Your task to perform on an android device: open app "Firefox Browser" Image 0: 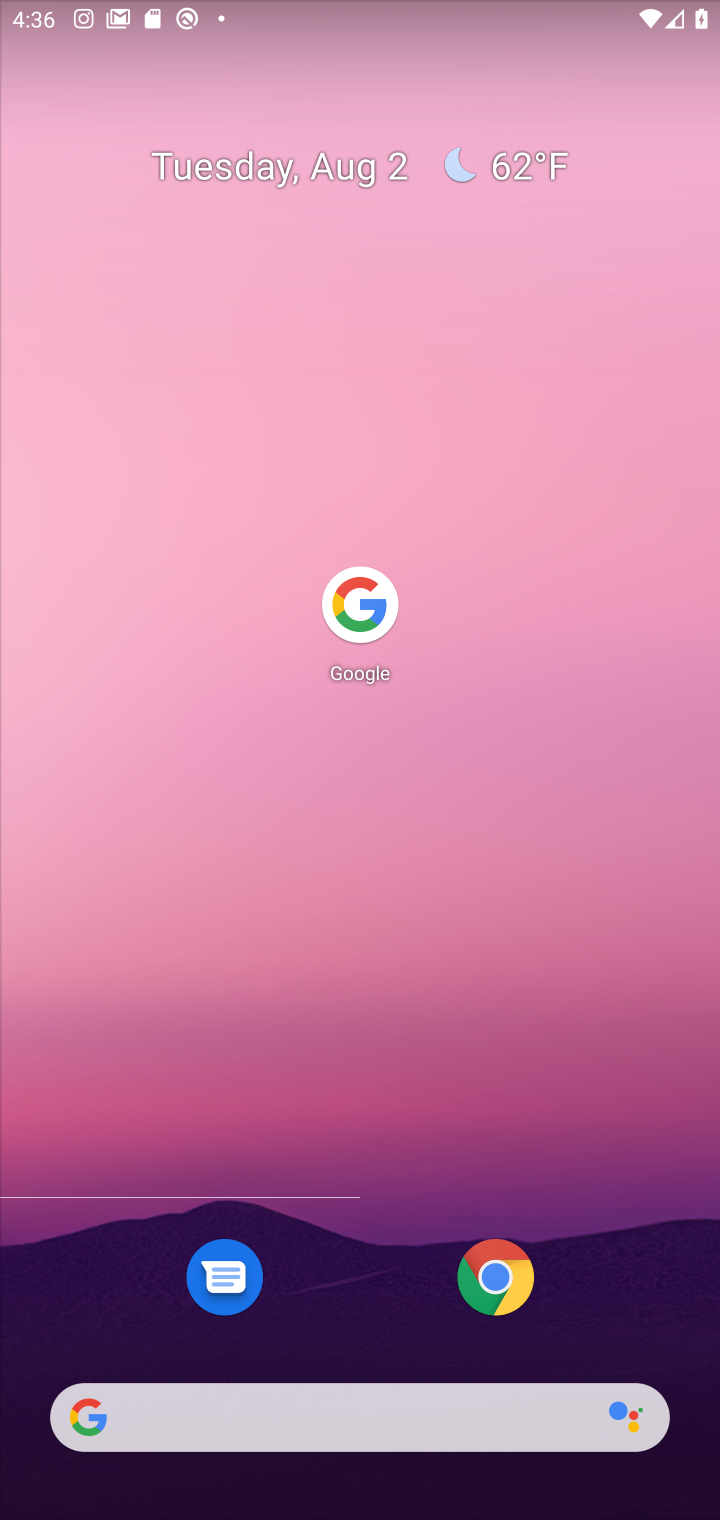
Step 0: drag from (587, 1123) to (557, 12)
Your task to perform on an android device: open app "Firefox Browser" Image 1: 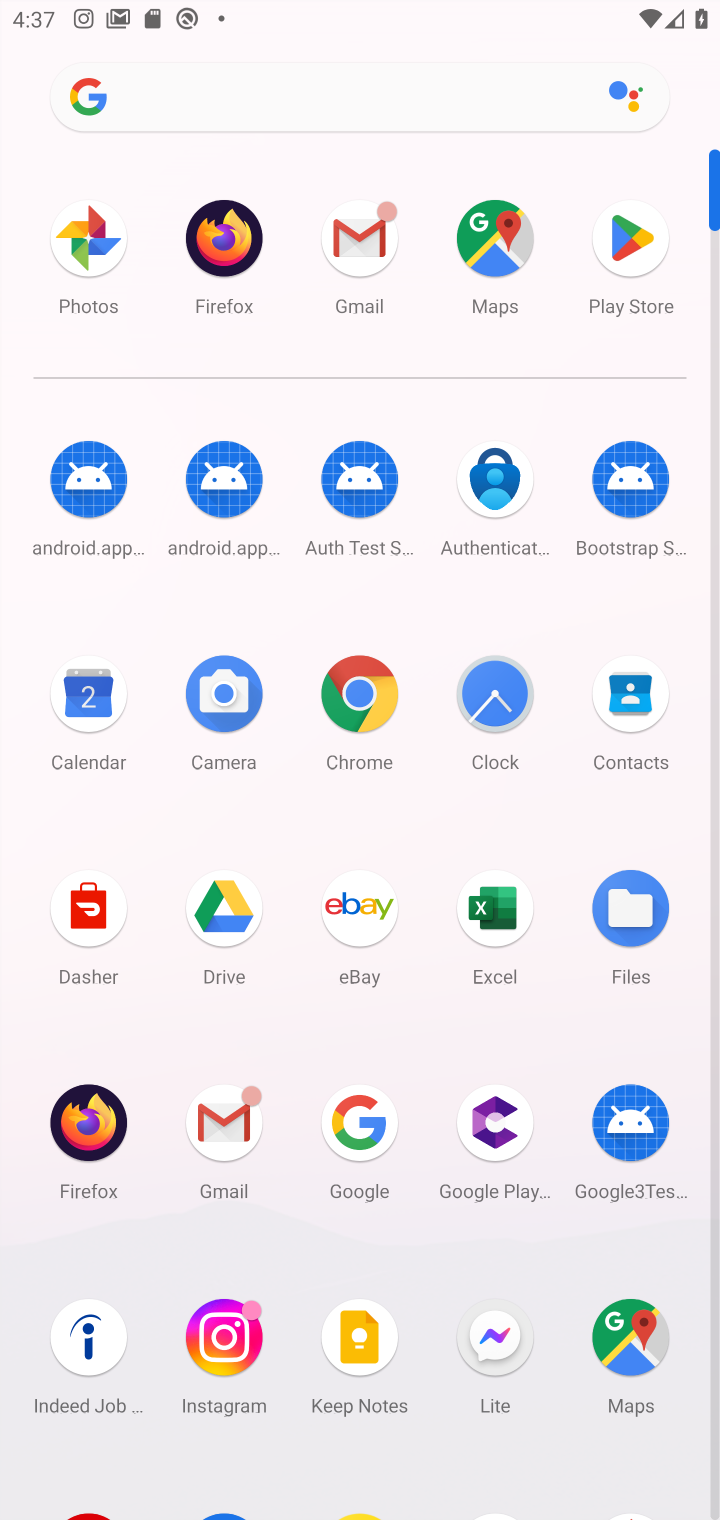
Step 1: drag from (546, 1248) to (536, 470)
Your task to perform on an android device: open app "Firefox Browser" Image 2: 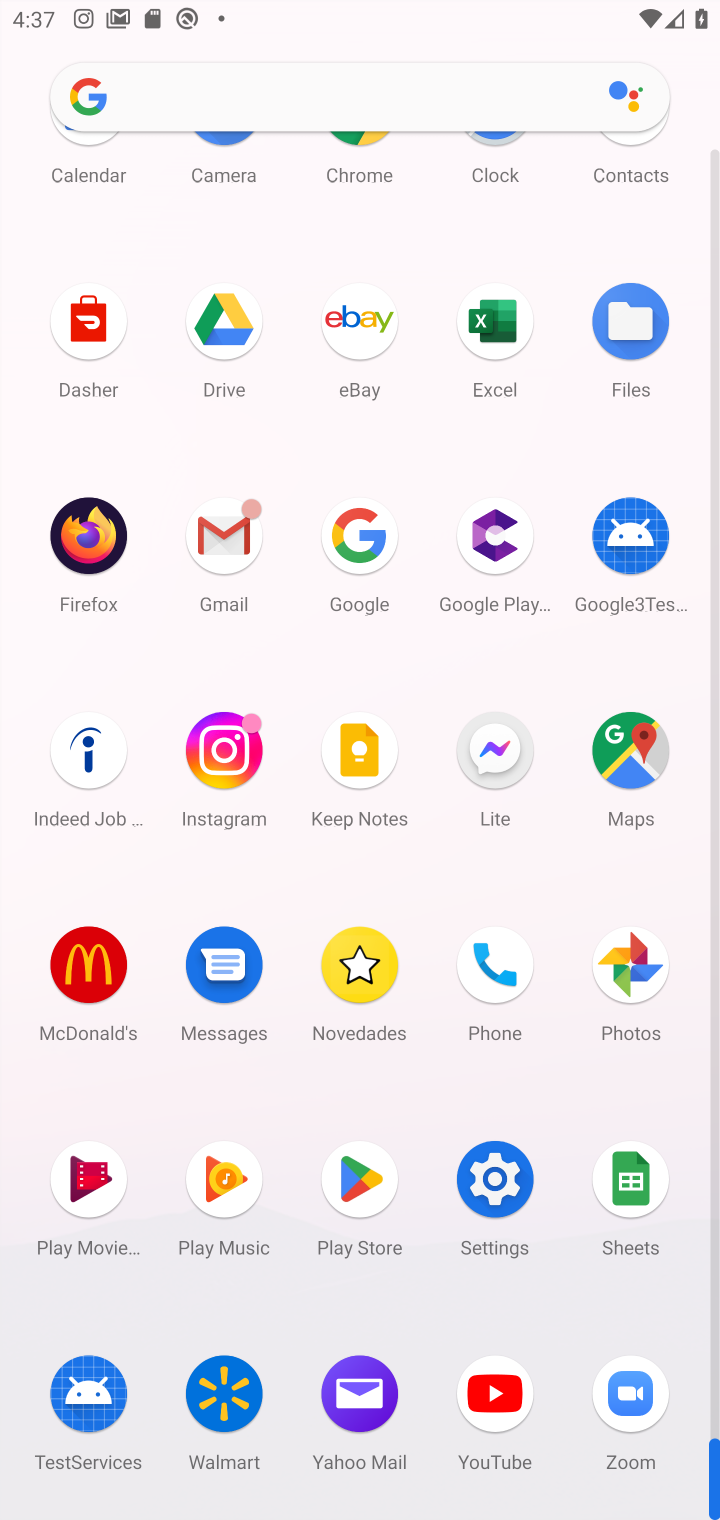
Step 2: click (347, 1180)
Your task to perform on an android device: open app "Firefox Browser" Image 3: 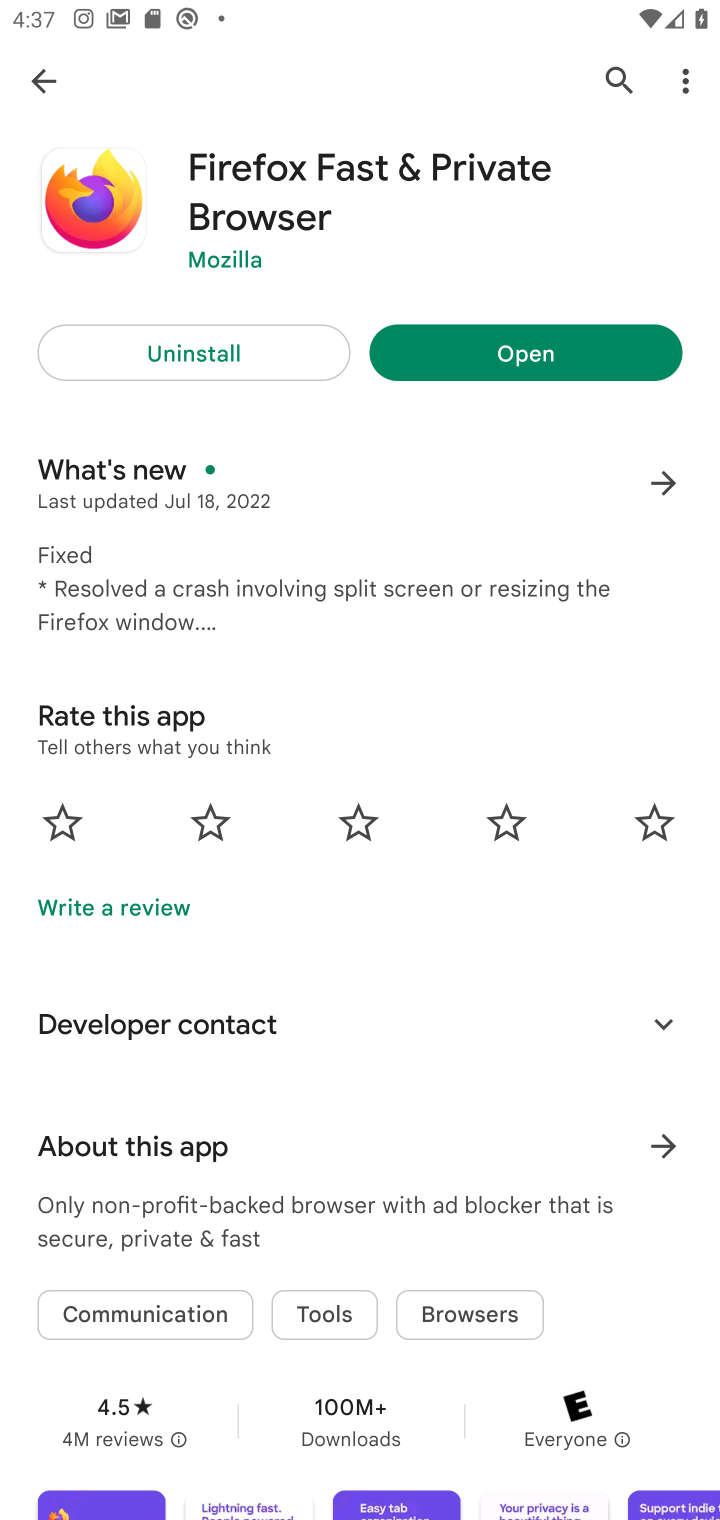
Step 3: click (614, 76)
Your task to perform on an android device: open app "Firefox Browser" Image 4: 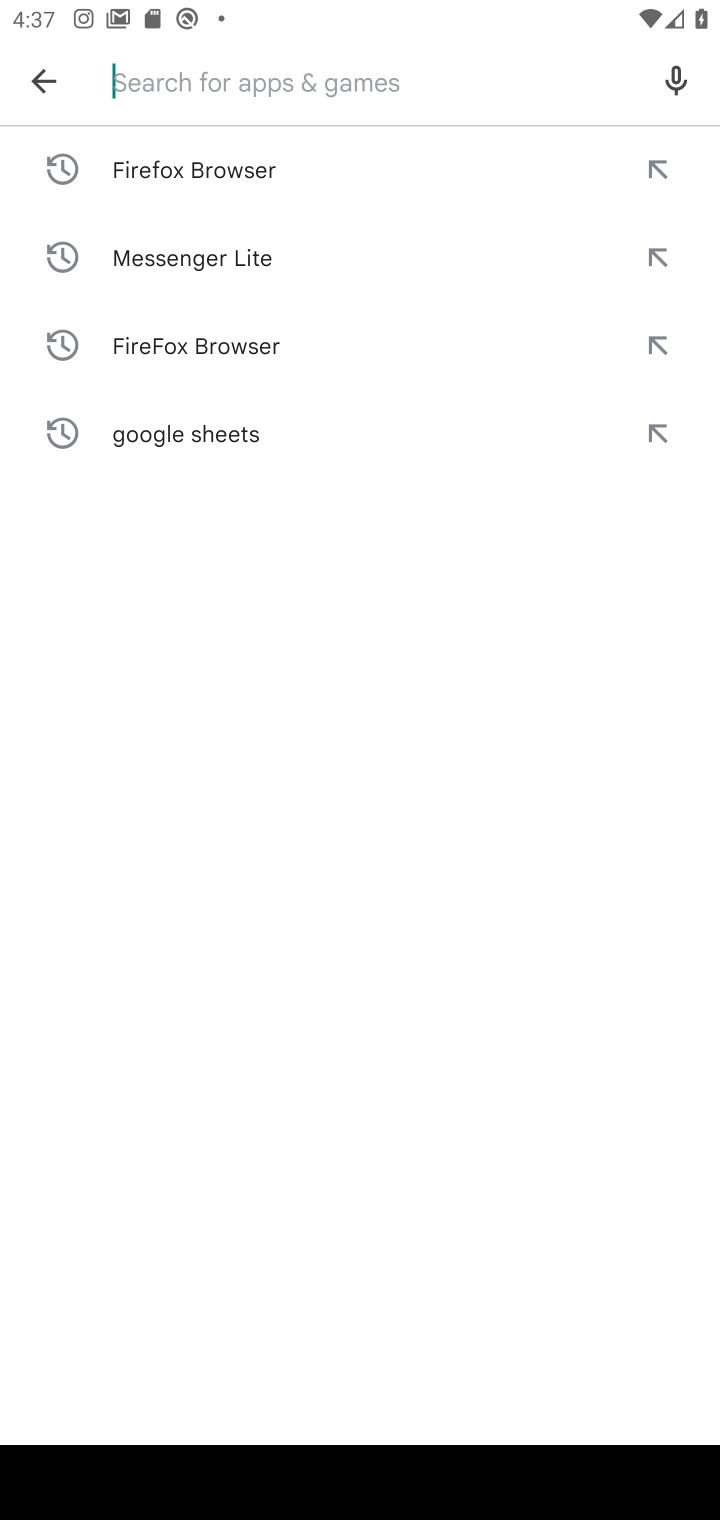
Step 4: click (52, 60)
Your task to perform on an android device: open app "Firefox Browser" Image 5: 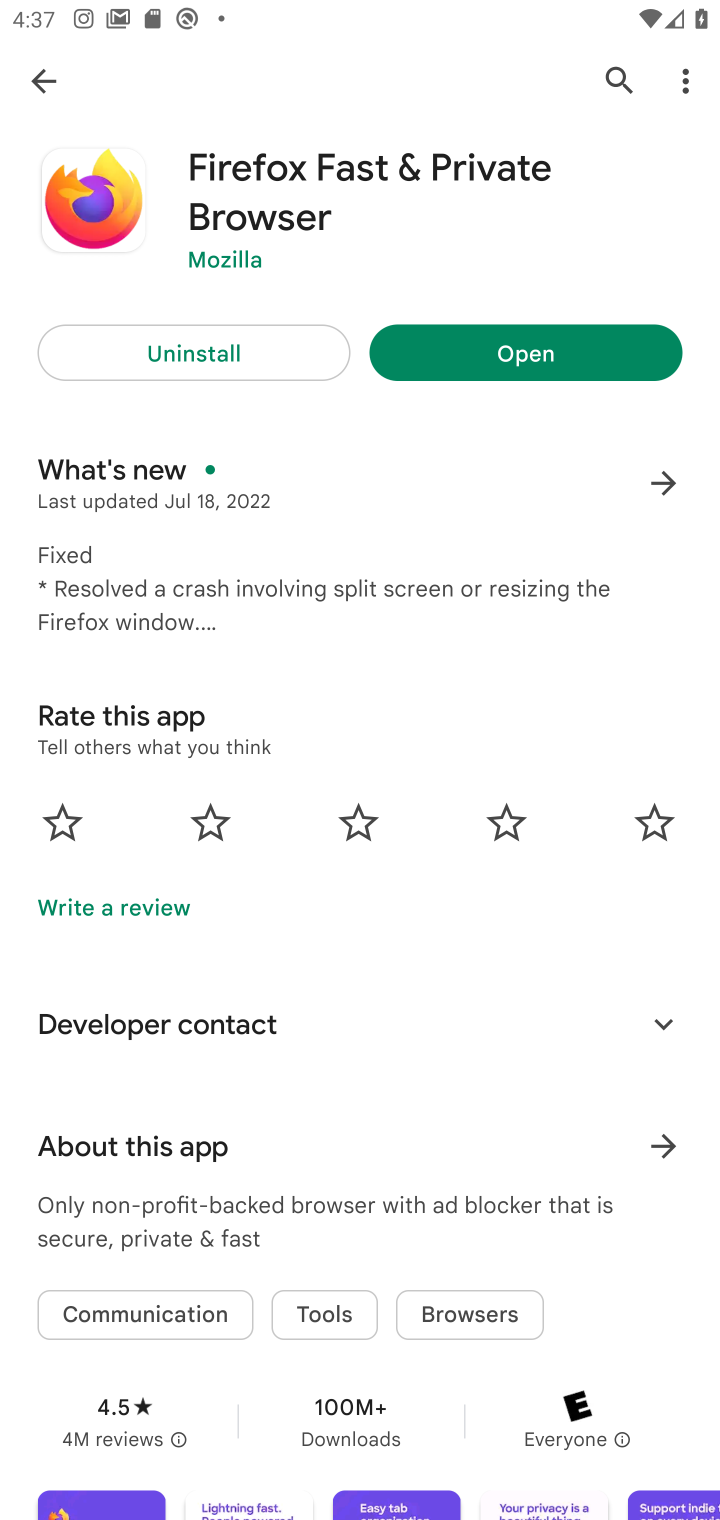
Step 5: click (524, 343)
Your task to perform on an android device: open app "Firefox Browser" Image 6: 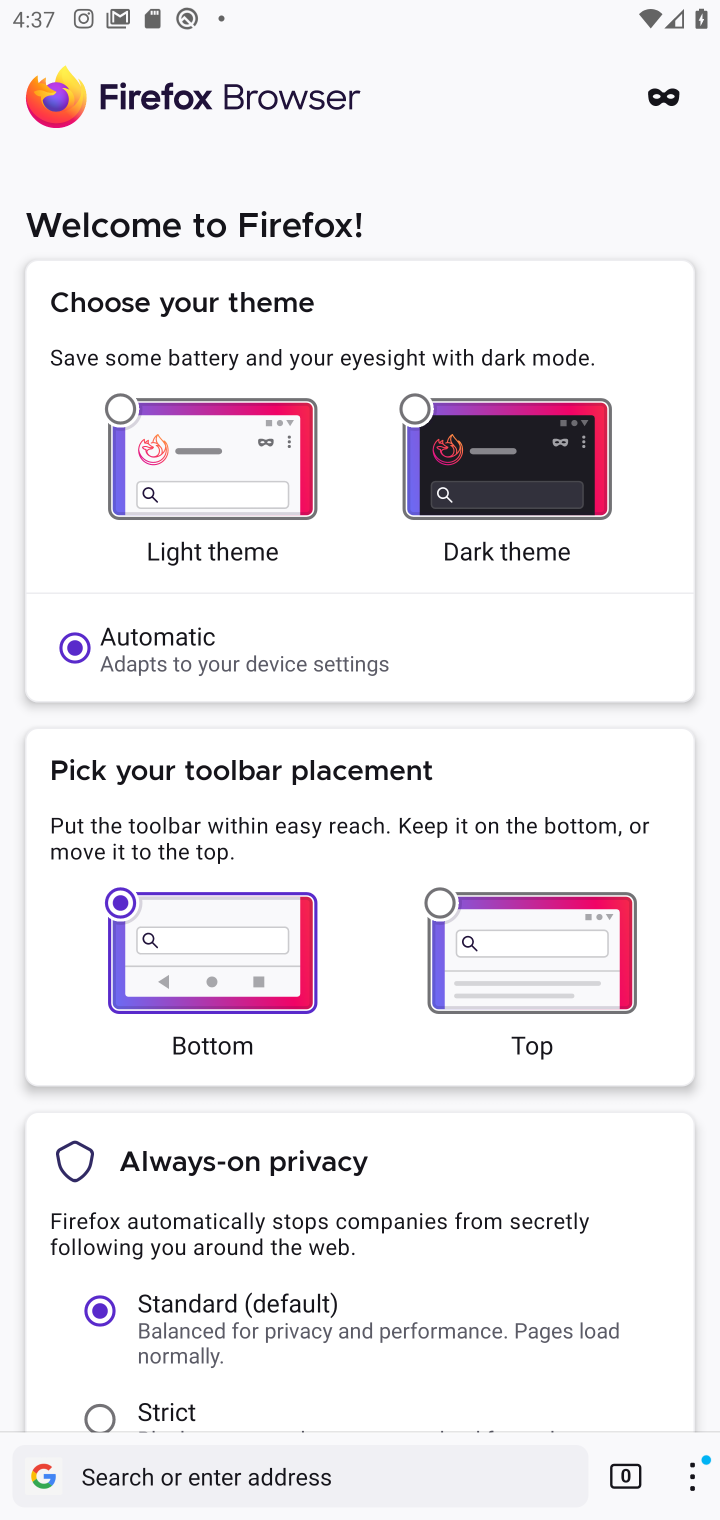
Step 6: task complete